Your task to perform on an android device: Go to Google maps Image 0: 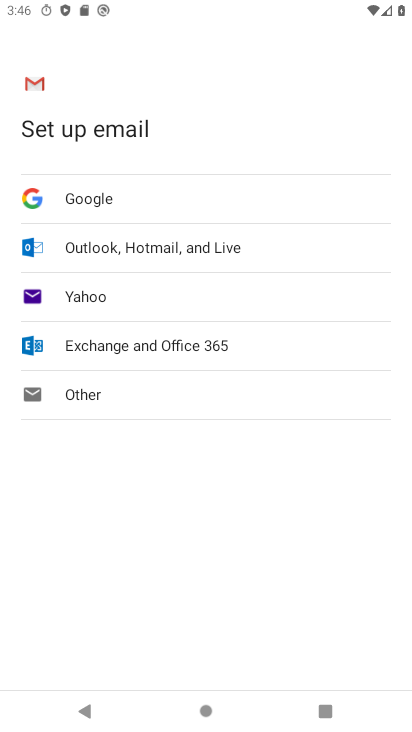
Step 0: press home button
Your task to perform on an android device: Go to Google maps Image 1: 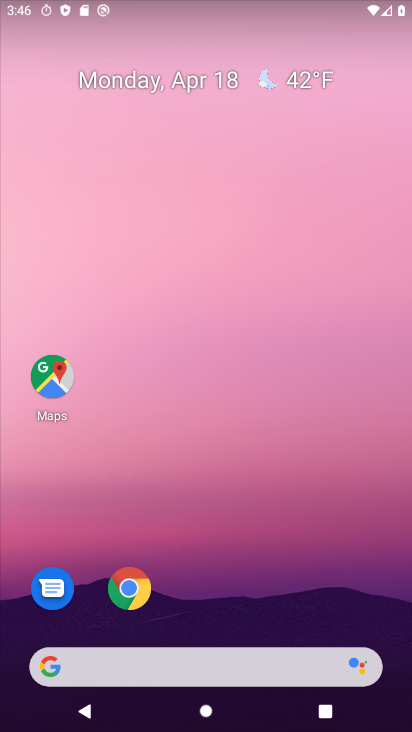
Step 1: click (56, 385)
Your task to perform on an android device: Go to Google maps Image 2: 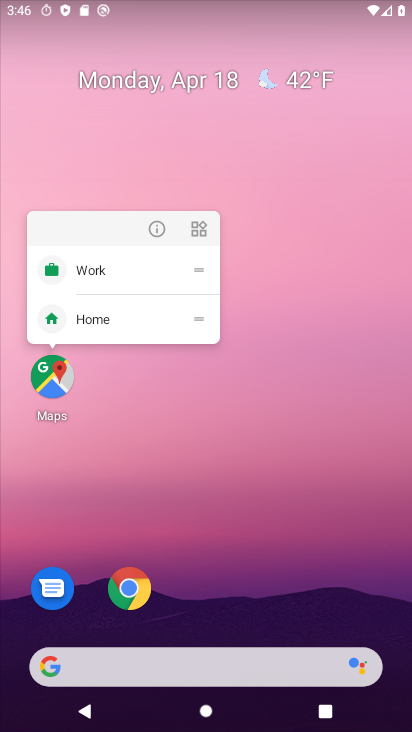
Step 2: click (55, 368)
Your task to perform on an android device: Go to Google maps Image 3: 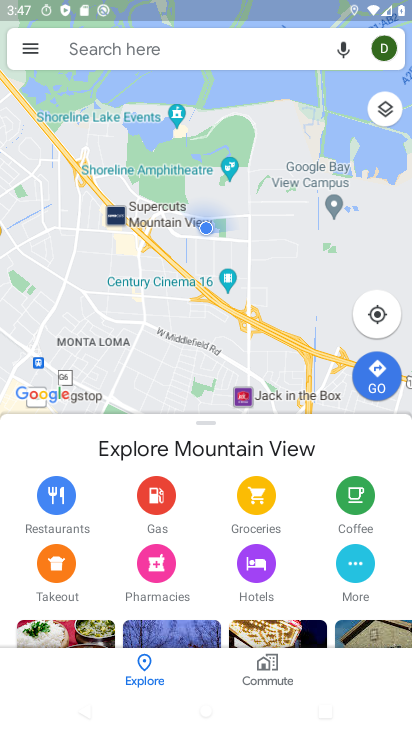
Step 3: task complete